Your task to perform on an android device: find which apps use the phone's location Image 0: 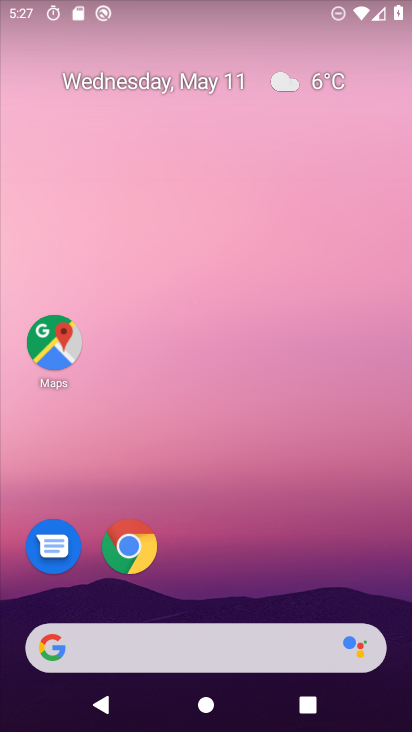
Step 0: drag from (226, 582) to (267, 294)
Your task to perform on an android device: find which apps use the phone's location Image 1: 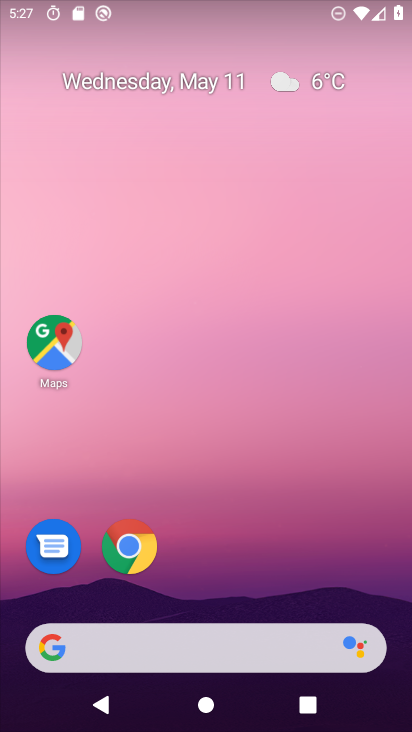
Step 1: drag from (250, 495) to (250, 273)
Your task to perform on an android device: find which apps use the phone's location Image 2: 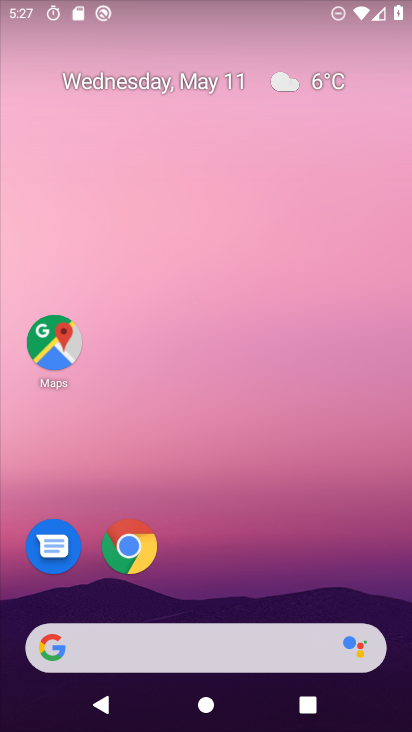
Step 2: drag from (213, 621) to (227, 266)
Your task to perform on an android device: find which apps use the phone's location Image 3: 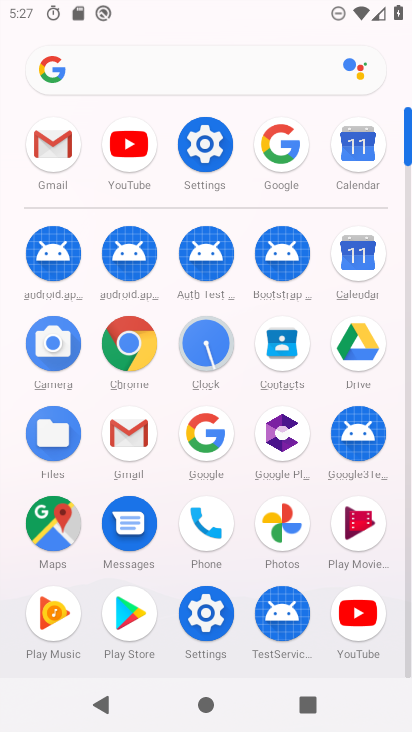
Step 3: click (210, 157)
Your task to perform on an android device: find which apps use the phone's location Image 4: 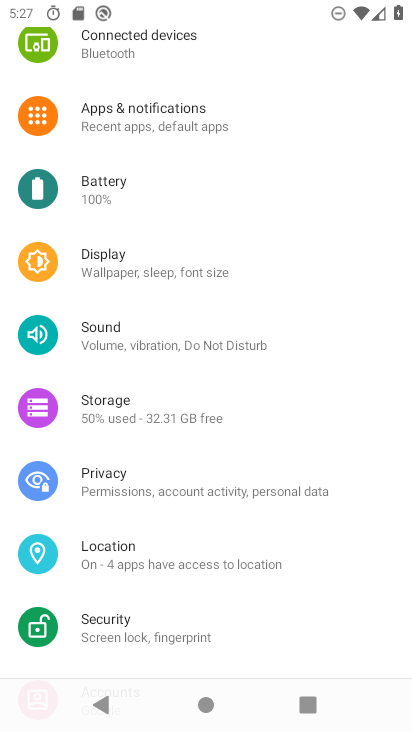
Step 4: click (102, 544)
Your task to perform on an android device: find which apps use the phone's location Image 5: 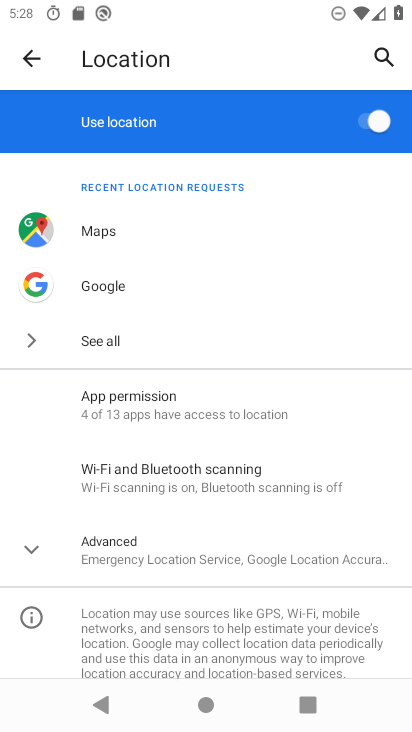
Step 5: click (148, 392)
Your task to perform on an android device: find which apps use the phone's location Image 6: 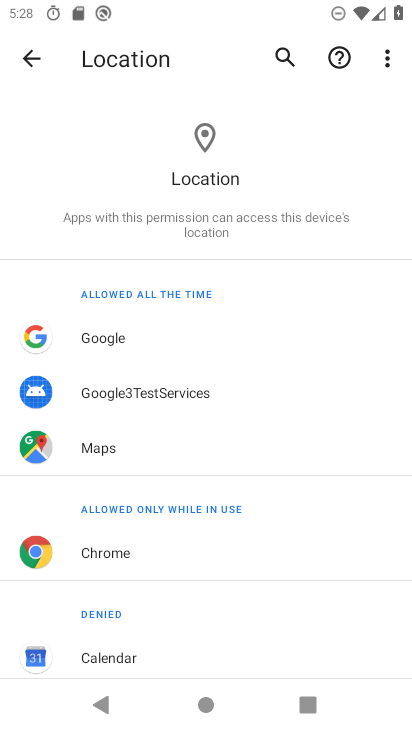
Step 6: task complete